Your task to perform on an android device: add a contact Image 0: 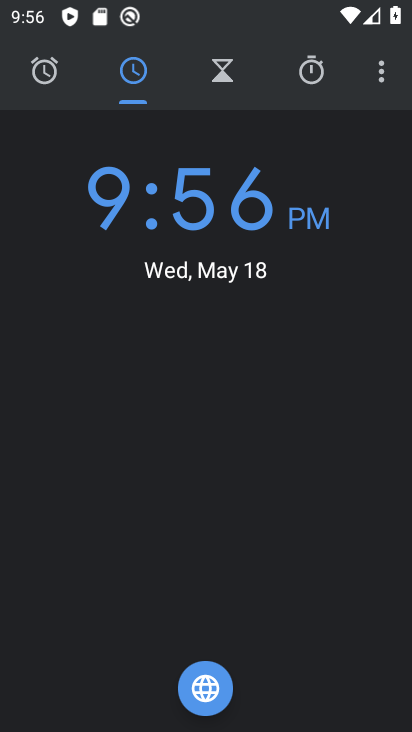
Step 0: press back button
Your task to perform on an android device: add a contact Image 1: 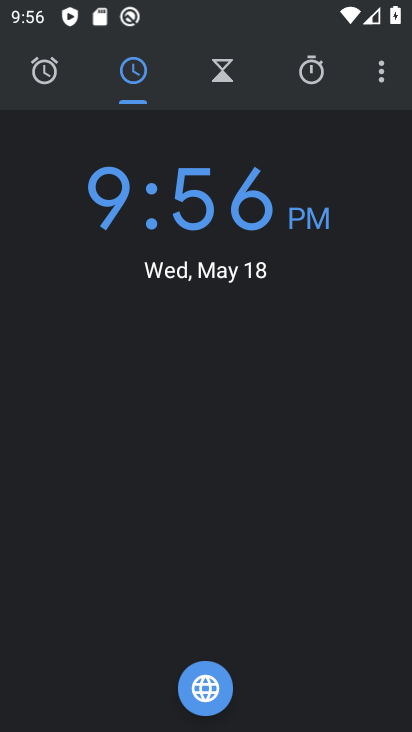
Step 1: press back button
Your task to perform on an android device: add a contact Image 2: 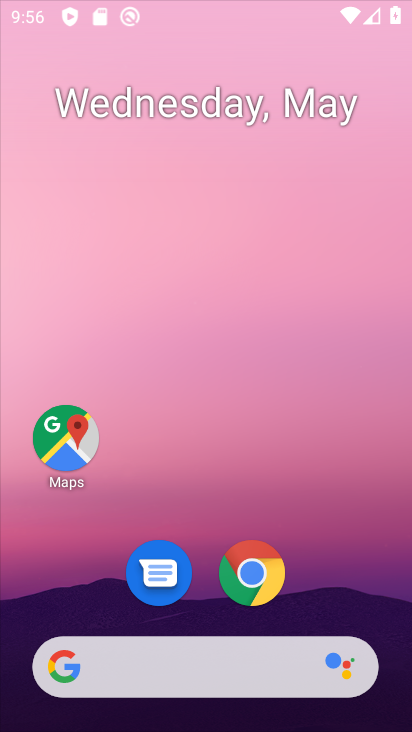
Step 2: press back button
Your task to perform on an android device: add a contact Image 3: 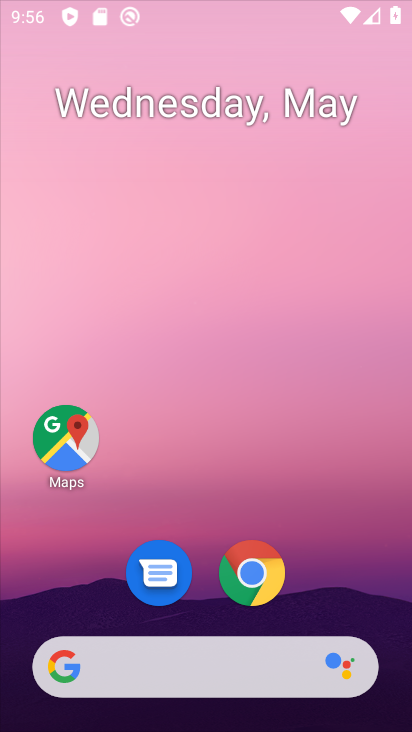
Step 3: press back button
Your task to perform on an android device: add a contact Image 4: 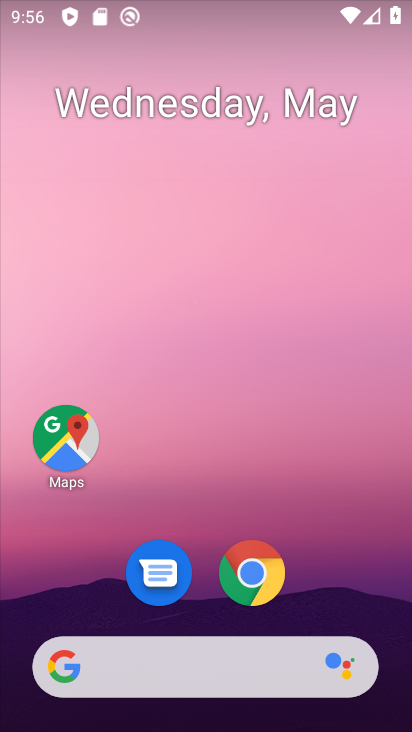
Step 4: drag from (316, 658) to (77, 6)
Your task to perform on an android device: add a contact Image 5: 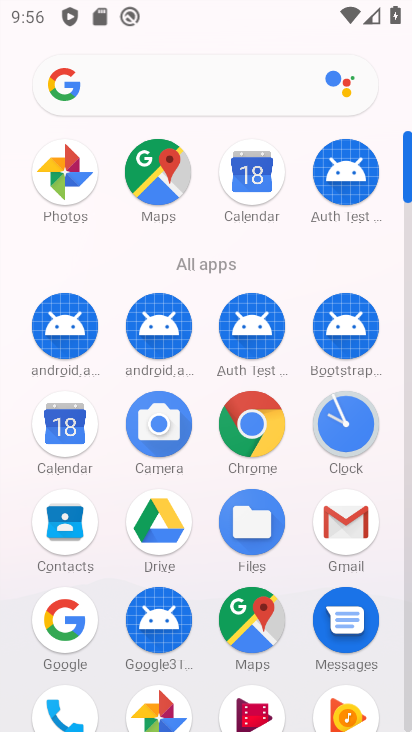
Step 5: click (74, 534)
Your task to perform on an android device: add a contact Image 6: 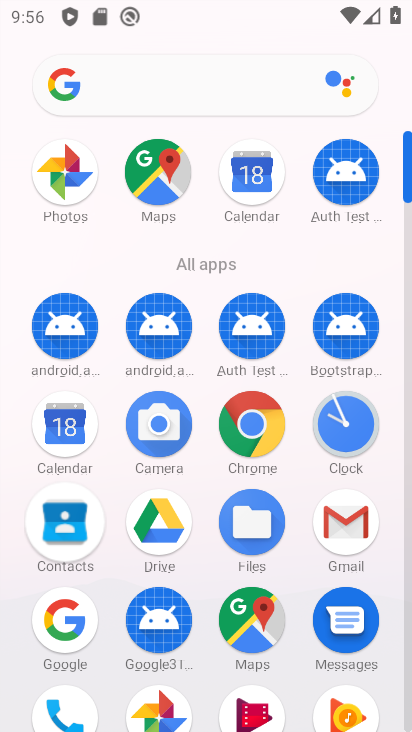
Step 6: click (75, 535)
Your task to perform on an android device: add a contact Image 7: 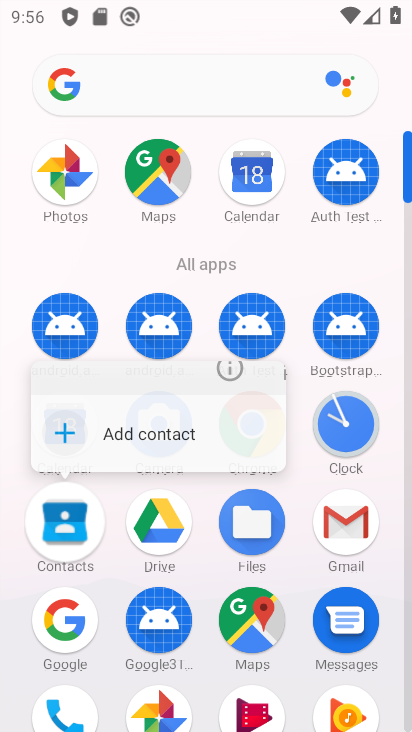
Step 7: click (67, 529)
Your task to perform on an android device: add a contact Image 8: 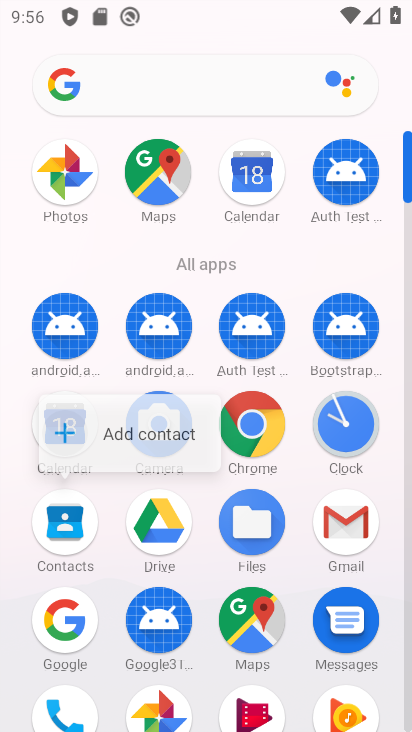
Step 8: click (68, 527)
Your task to perform on an android device: add a contact Image 9: 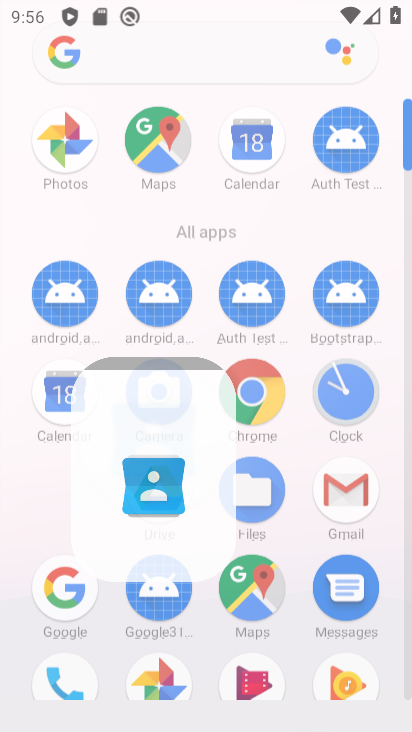
Step 9: click (71, 498)
Your task to perform on an android device: add a contact Image 10: 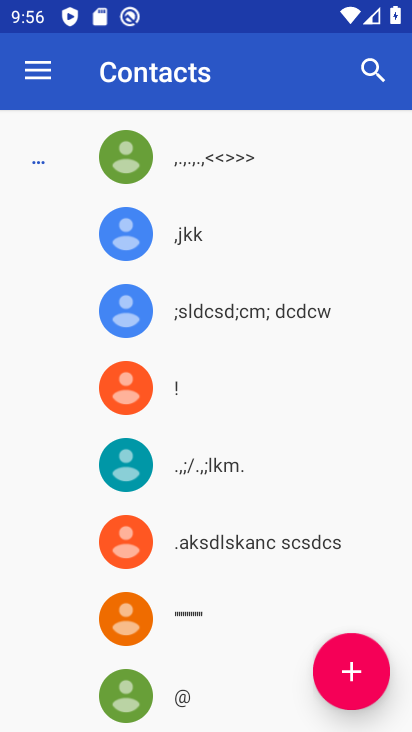
Step 10: click (346, 651)
Your task to perform on an android device: add a contact Image 11: 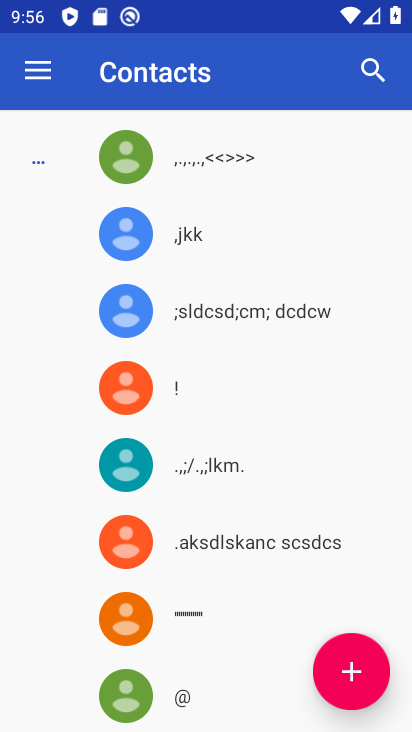
Step 11: click (351, 669)
Your task to perform on an android device: add a contact Image 12: 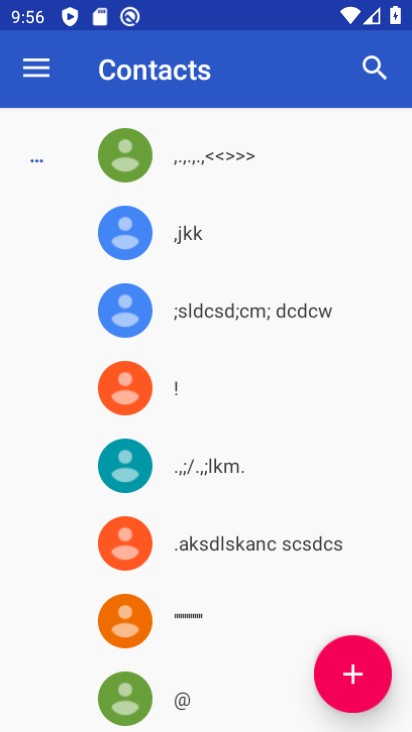
Step 12: click (351, 669)
Your task to perform on an android device: add a contact Image 13: 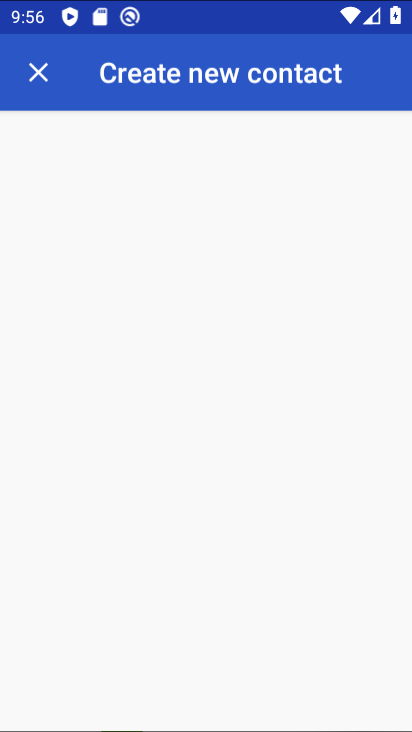
Step 13: click (352, 670)
Your task to perform on an android device: add a contact Image 14: 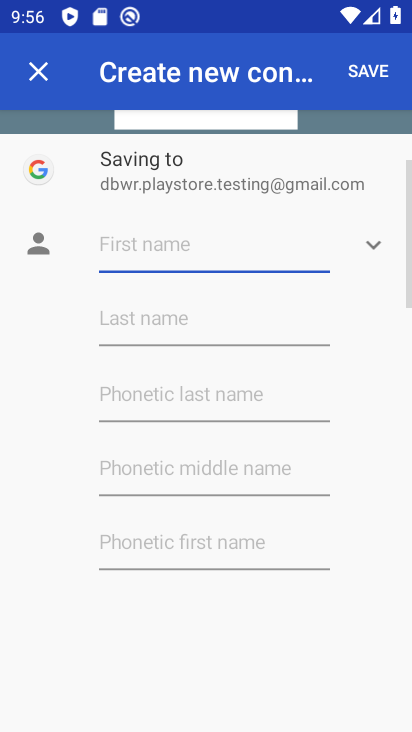
Step 14: click (354, 672)
Your task to perform on an android device: add a contact Image 15: 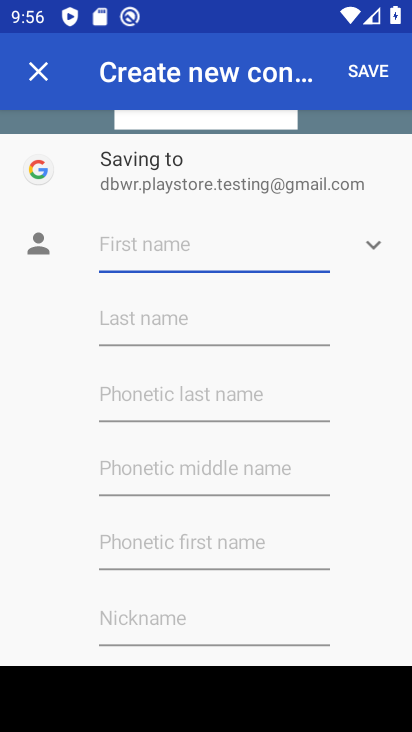
Step 15: type "fgugjhgihg"
Your task to perform on an android device: add a contact Image 16: 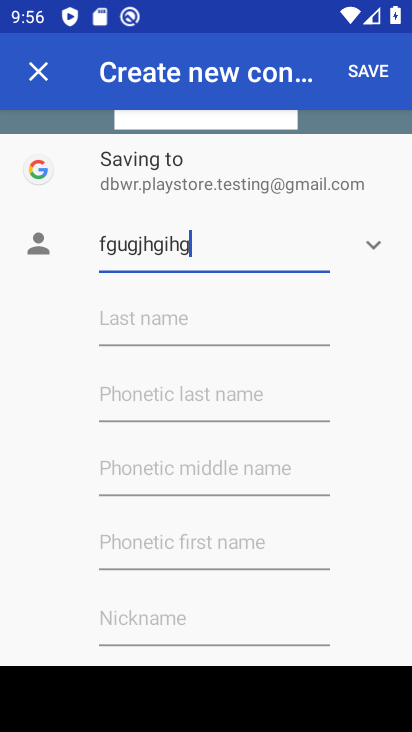
Step 16: click (114, 404)
Your task to perform on an android device: add a contact Image 17: 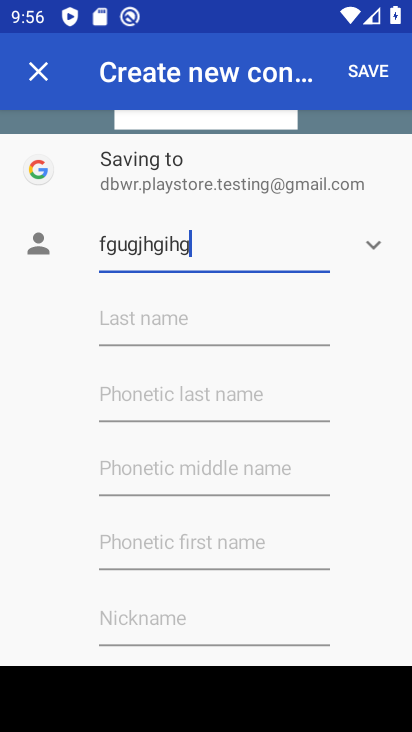
Step 17: click (114, 404)
Your task to perform on an android device: add a contact Image 18: 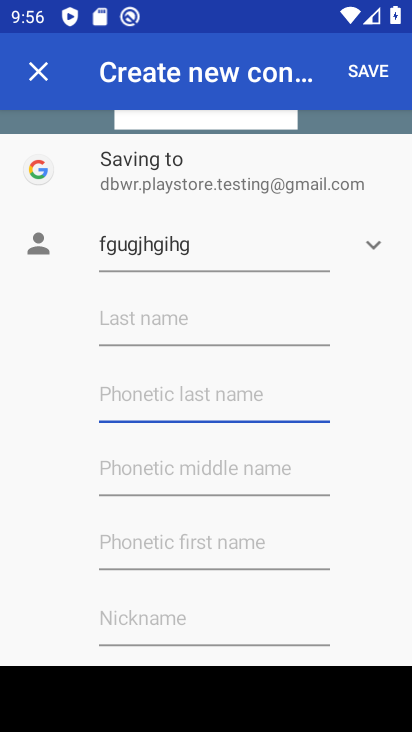
Step 18: click (114, 404)
Your task to perform on an android device: add a contact Image 19: 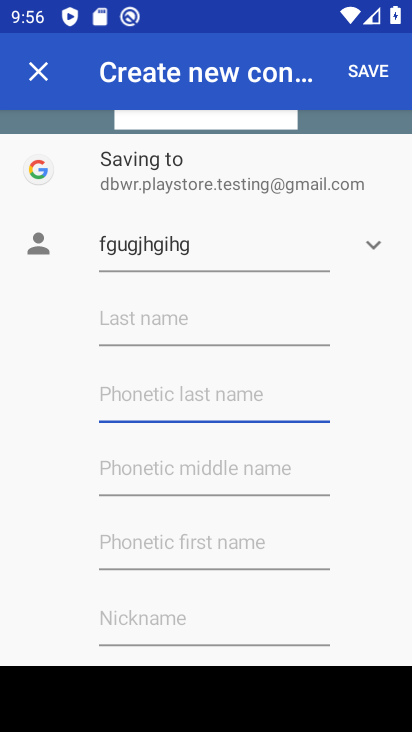
Step 19: click (114, 404)
Your task to perform on an android device: add a contact Image 20: 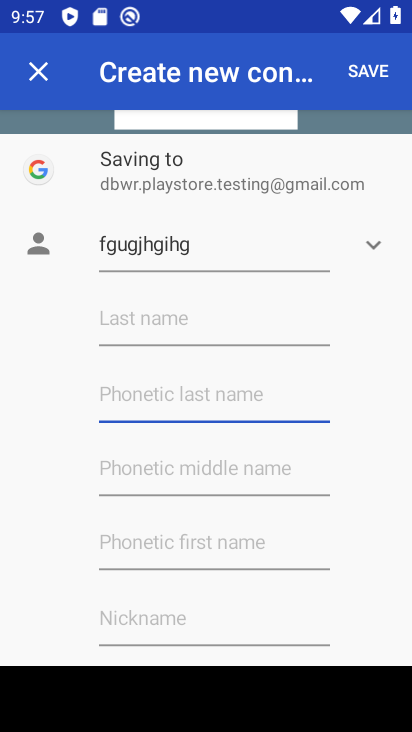
Step 20: type "876687677897877876"
Your task to perform on an android device: add a contact Image 21: 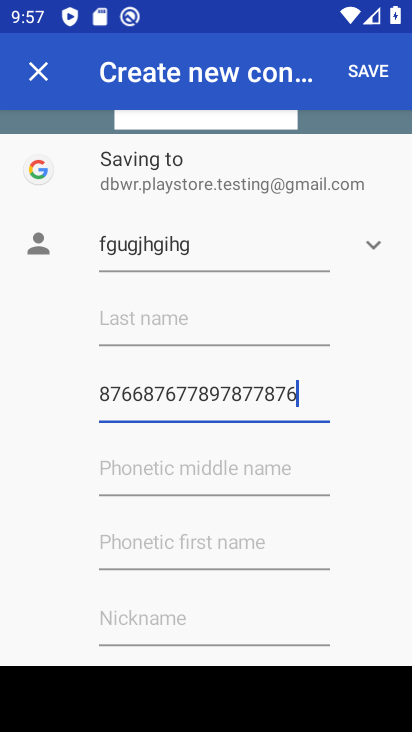
Step 21: click (366, 65)
Your task to perform on an android device: add a contact Image 22: 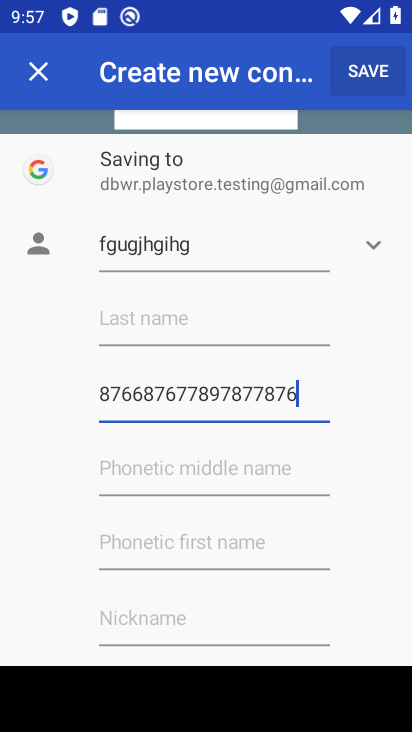
Step 22: click (366, 68)
Your task to perform on an android device: add a contact Image 23: 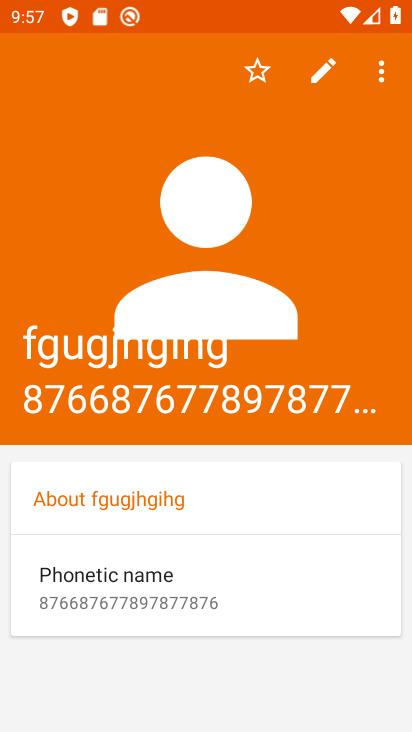
Step 23: task complete